Your task to perform on an android device: Open Youtube and go to "Your channel" Image 0: 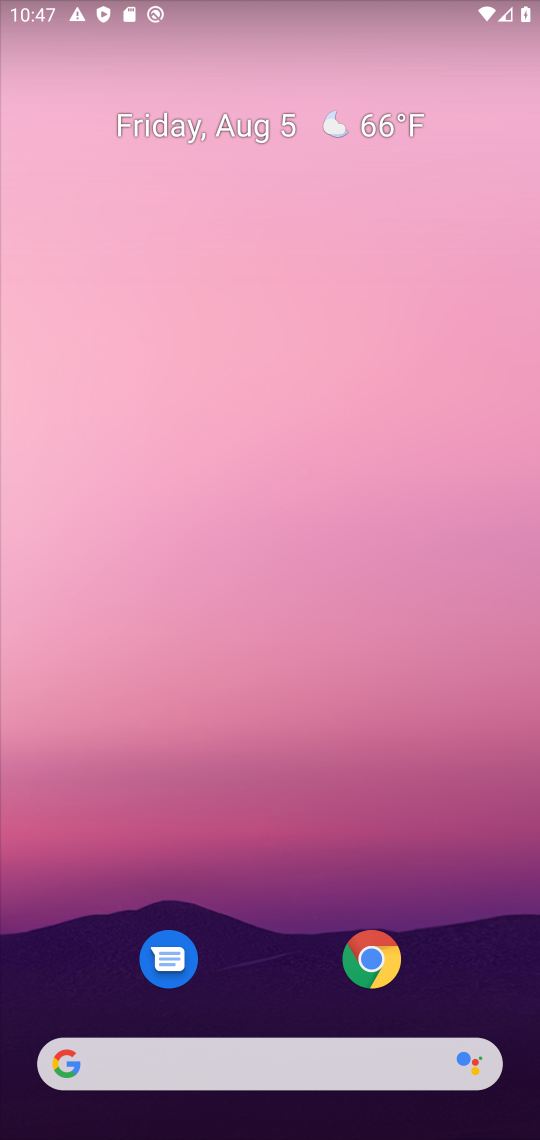
Step 0: drag from (318, 1037) to (284, 87)
Your task to perform on an android device: Open Youtube and go to "Your channel" Image 1: 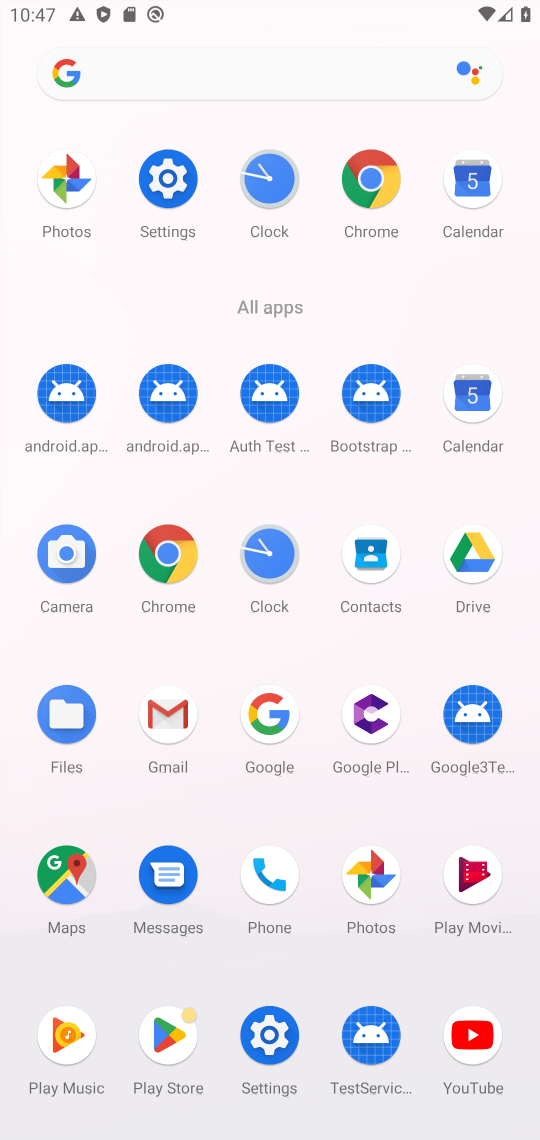
Step 1: click (477, 1045)
Your task to perform on an android device: Open Youtube and go to "Your channel" Image 2: 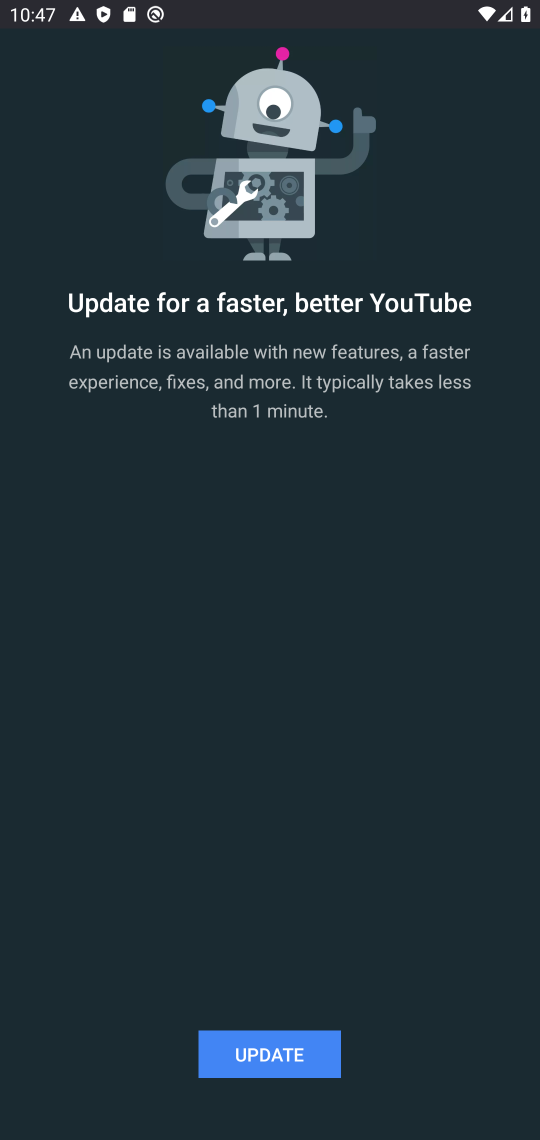
Step 2: click (301, 1045)
Your task to perform on an android device: Open Youtube and go to "Your channel" Image 3: 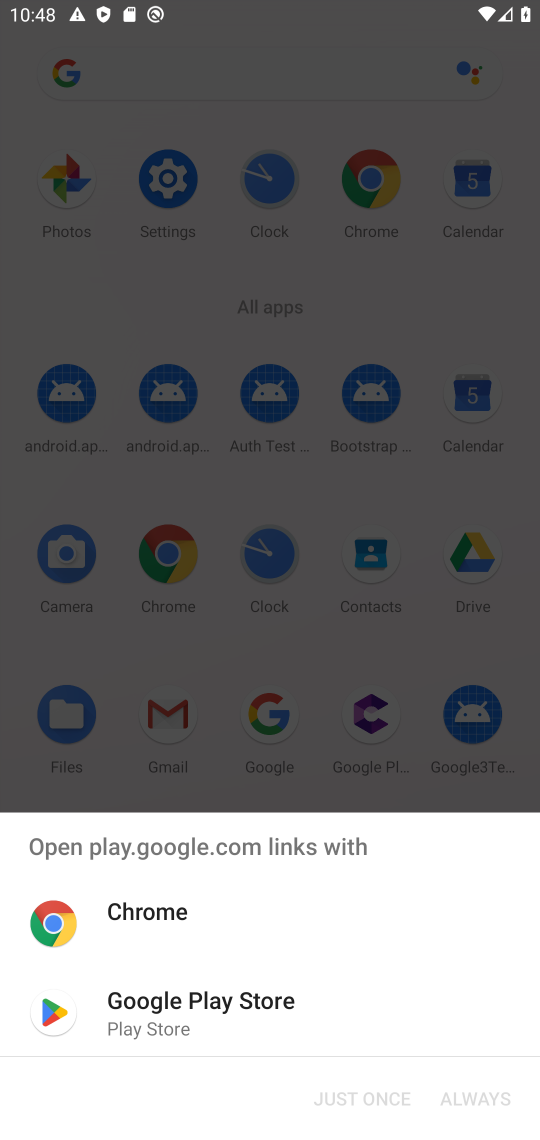
Step 3: click (250, 1016)
Your task to perform on an android device: Open Youtube and go to "Your channel" Image 4: 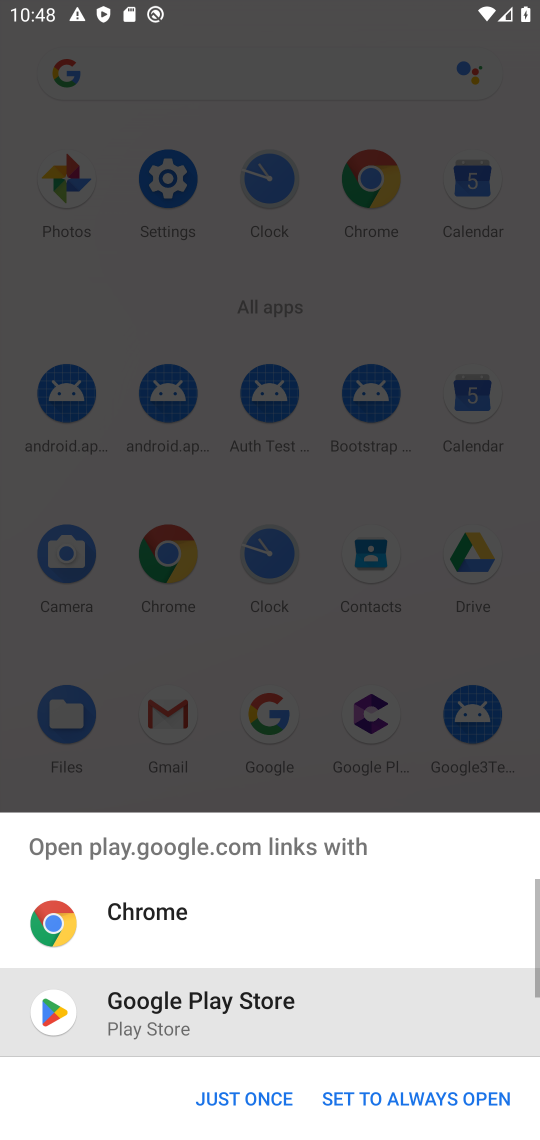
Step 4: click (217, 1093)
Your task to perform on an android device: Open Youtube and go to "Your channel" Image 5: 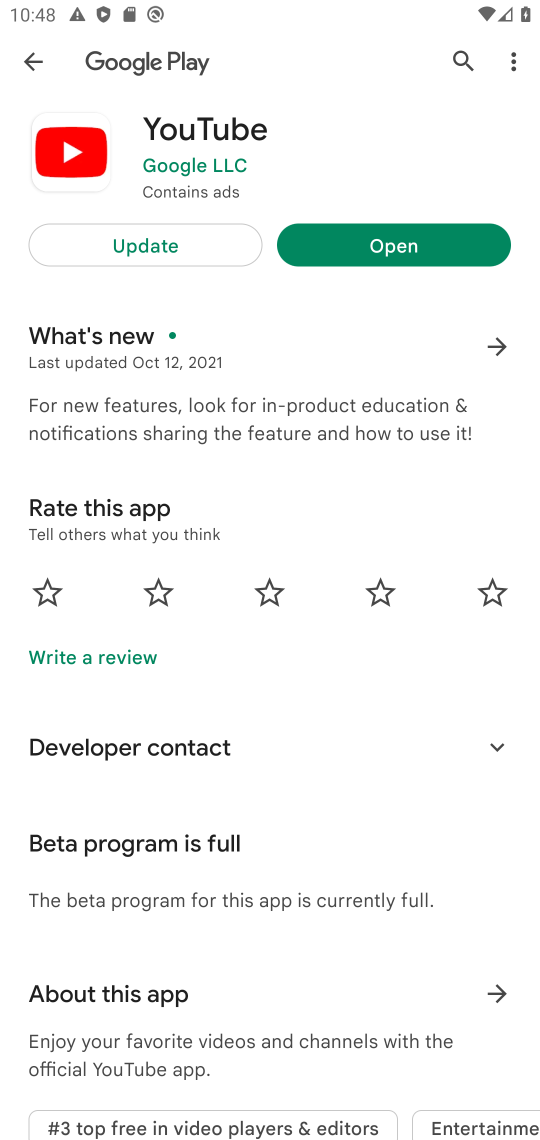
Step 5: click (163, 259)
Your task to perform on an android device: Open Youtube and go to "Your channel" Image 6: 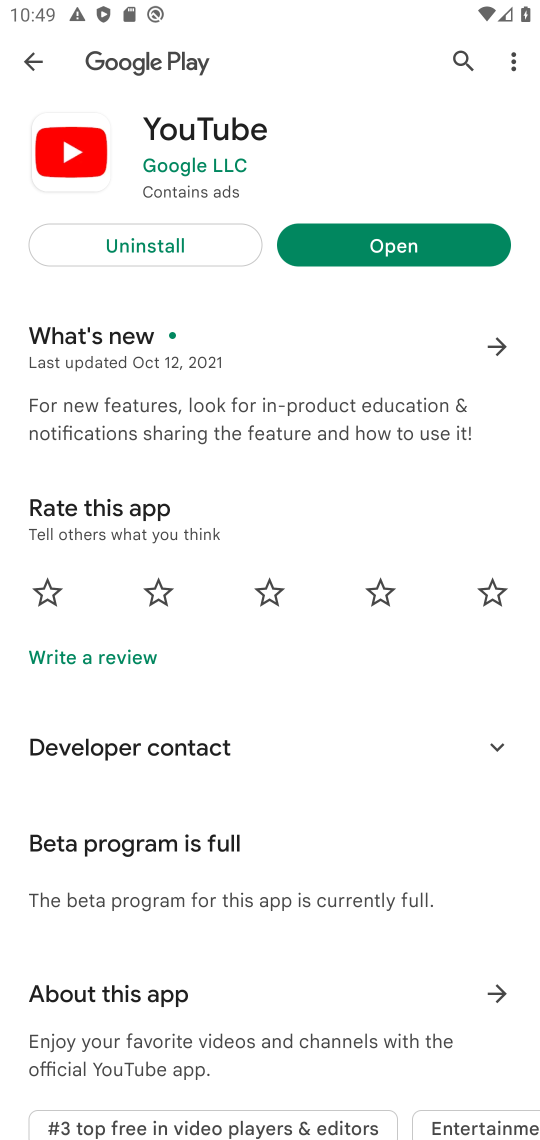
Step 6: click (380, 259)
Your task to perform on an android device: Open Youtube and go to "Your channel" Image 7: 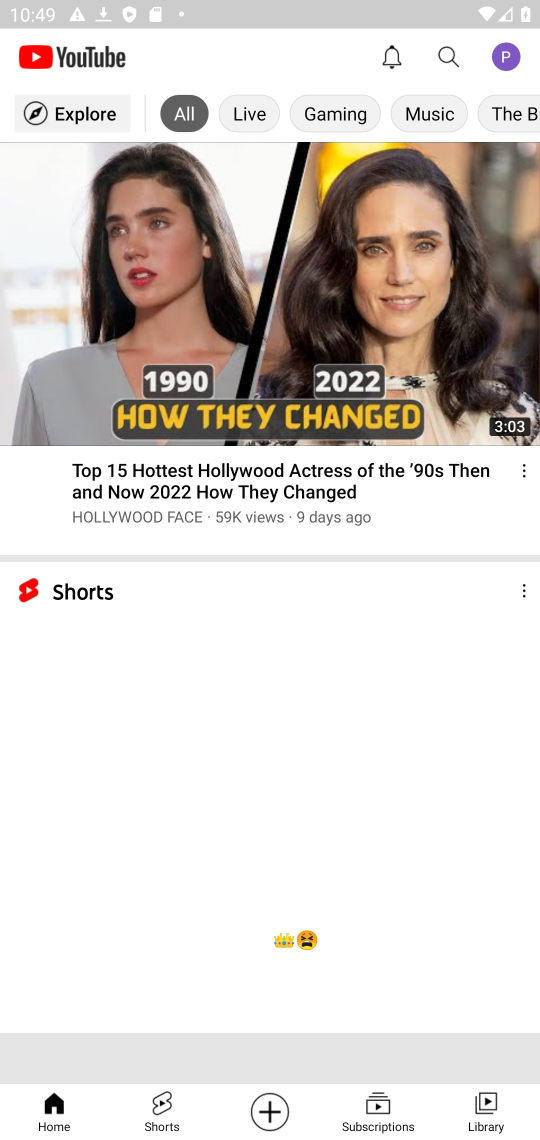
Step 7: click (504, 67)
Your task to perform on an android device: Open Youtube and go to "Your channel" Image 8: 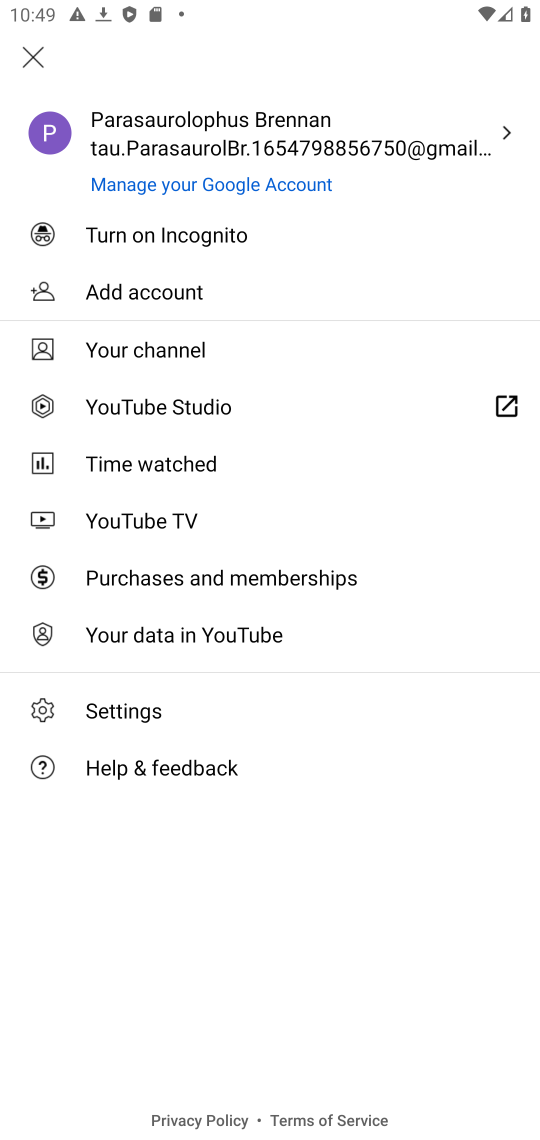
Step 8: click (198, 343)
Your task to perform on an android device: Open Youtube and go to "Your channel" Image 9: 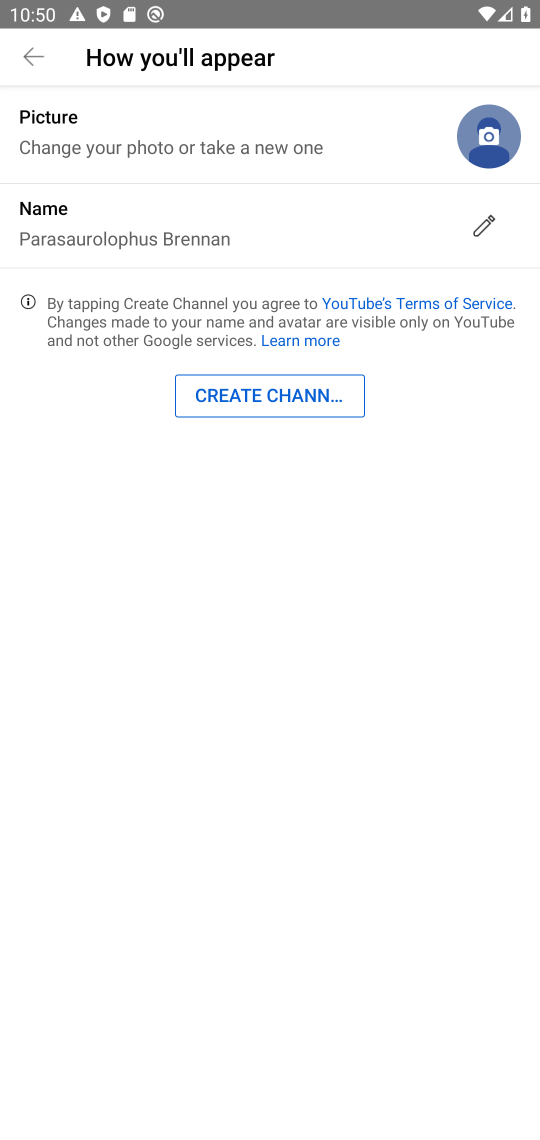
Step 9: task complete